Your task to perform on an android device: turn smart compose on in the gmail app Image 0: 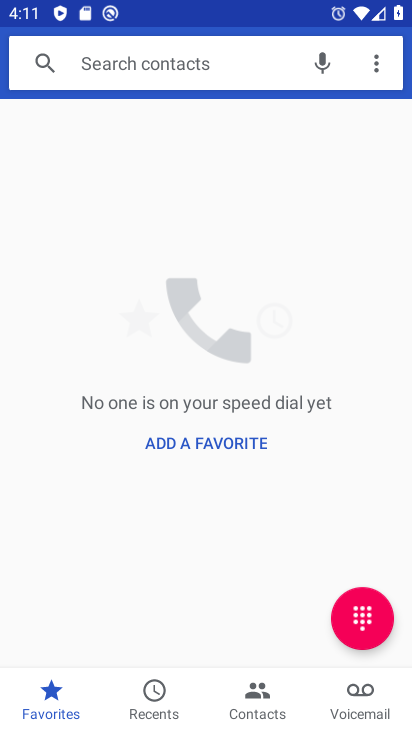
Step 0: press home button
Your task to perform on an android device: turn smart compose on in the gmail app Image 1: 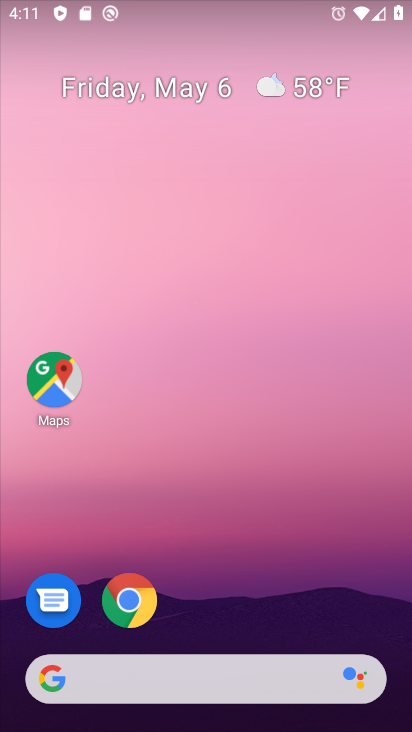
Step 1: drag from (220, 625) to (257, 141)
Your task to perform on an android device: turn smart compose on in the gmail app Image 2: 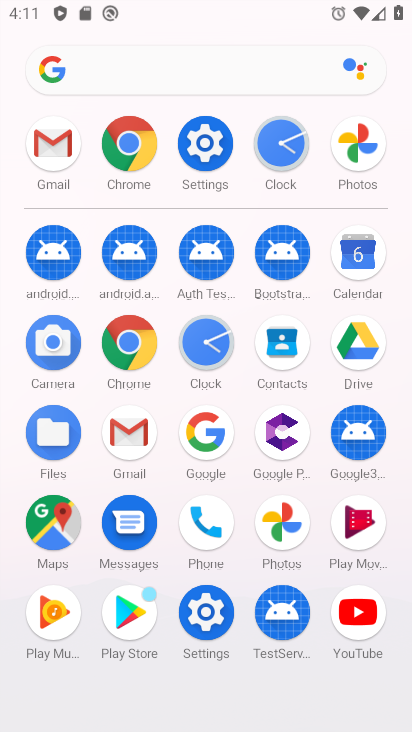
Step 2: click (145, 434)
Your task to perform on an android device: turn smart compose on in the gmail app Image 3: 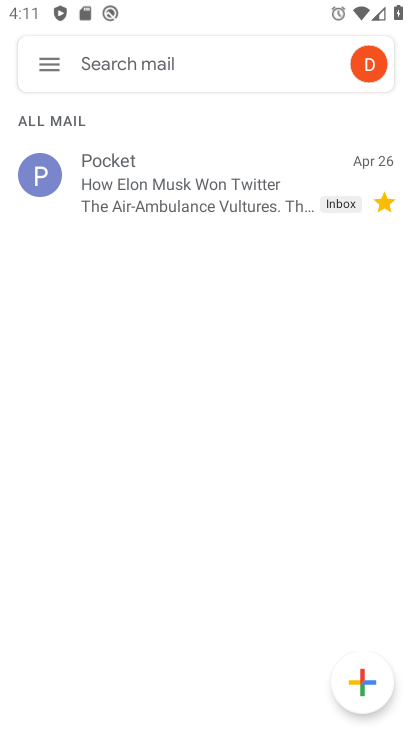
Step 3: click (62, 60)
Your task to perform on an android device: turn smart compose on in the gmail app Image 4: 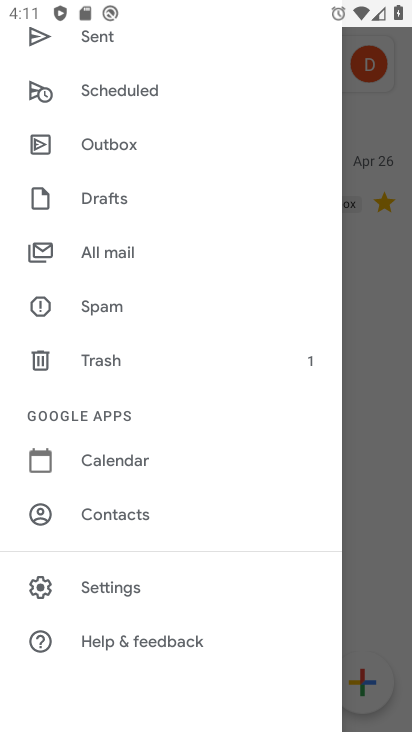
Step 4: click (136, 591)
Your task to perform on an android device: turn smart compose on in the gmail app Image 5: 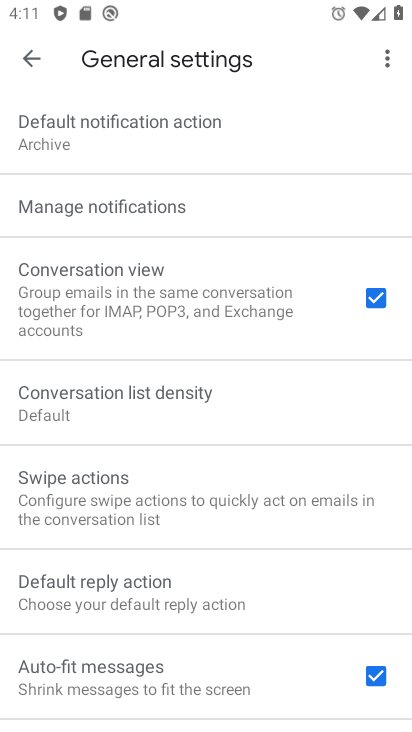
Step 5: click (28, 52)
Your task to perform on an android device: turn smart compose on in the gmail app Image 6: 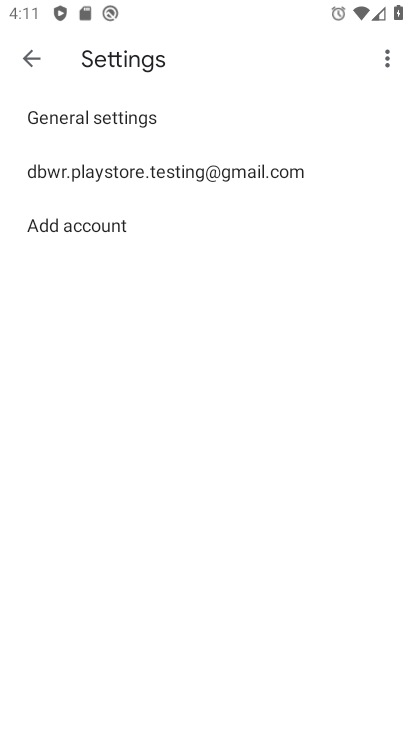
Step 6: click (152, 182)
Your task to perform on an android device: turn smart compose on in the gmail app Image 7: 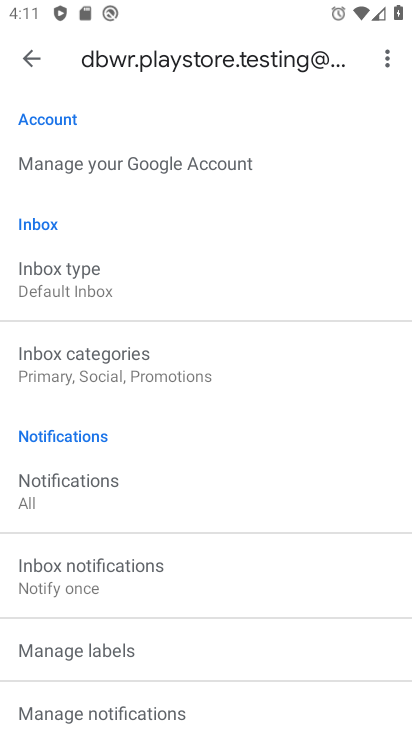
Step 7: task complete